Your task to perform on an android device: change timer sound Image 0: 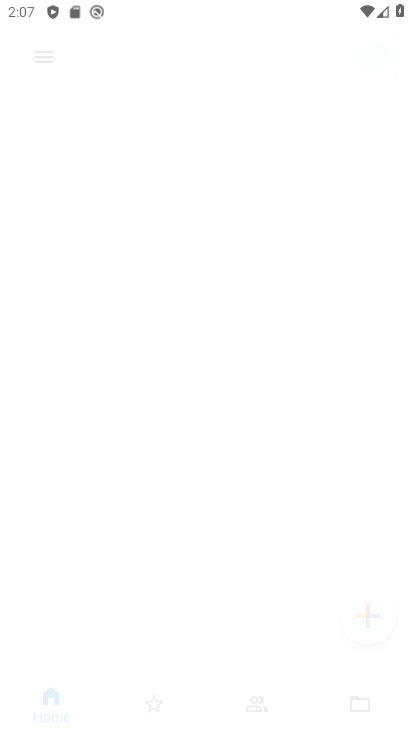
Step 0: drag from (201, 607) to (265, 137)
Your task to perform on an android device: change timer sound Image 1: 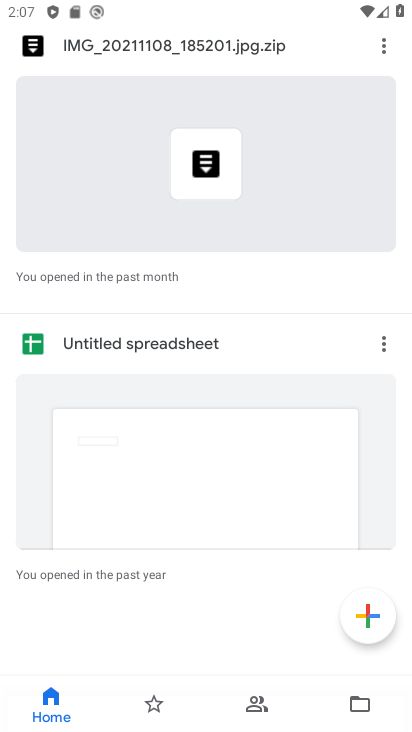
Step 1: press home button
Your task to perform on an android device: change timer sound Image 2: 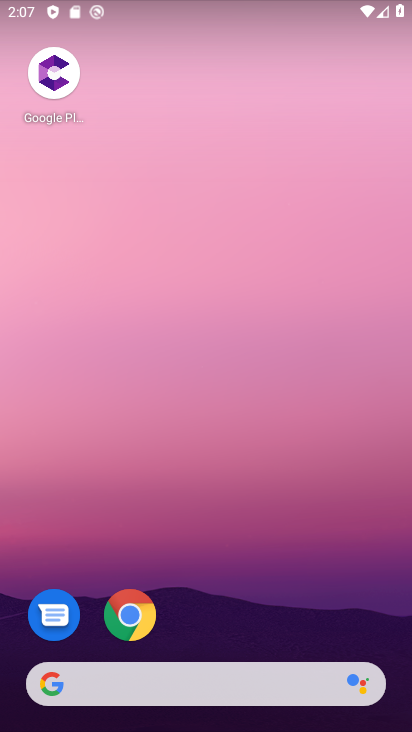
Step 2: drag from (219, 605) to (254, 144)
Your task to perform on an android device: change timer sound Image 3: 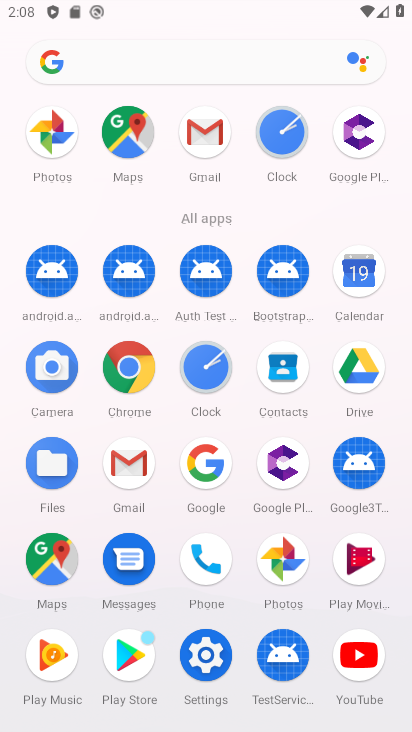
Step 3: click (205, 366)
Your task to perform on an android device: change timer sound Image 4: 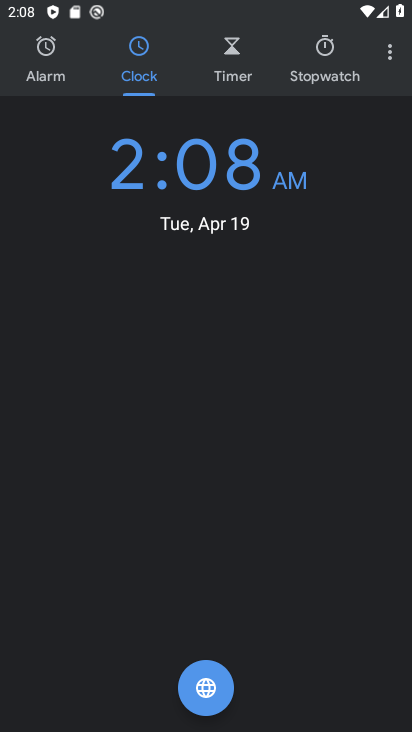
Step 4: click (388, 55)
Your task to perform on an android device: change timer sound Image 5: 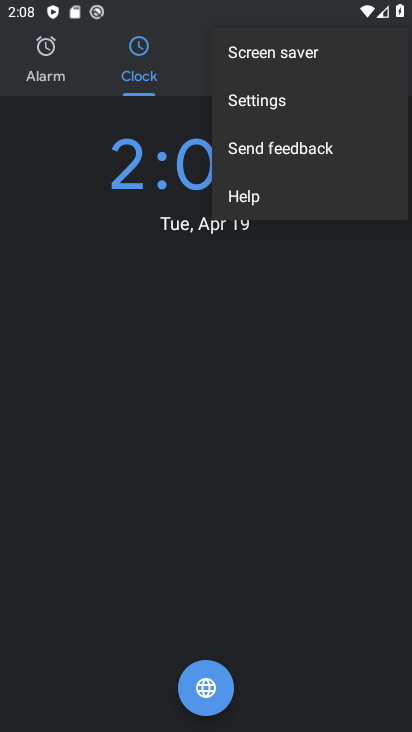
Step 5: click (286, 89)
Your task to perform on an android device: change timer sound Image 6: 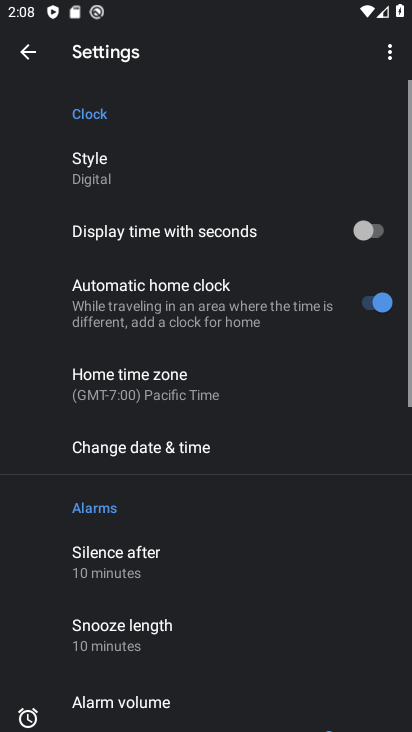
Step 6: drag from (226, 561) to (240, 112)
Your task to perform on an android device: change timer sound Image 7: 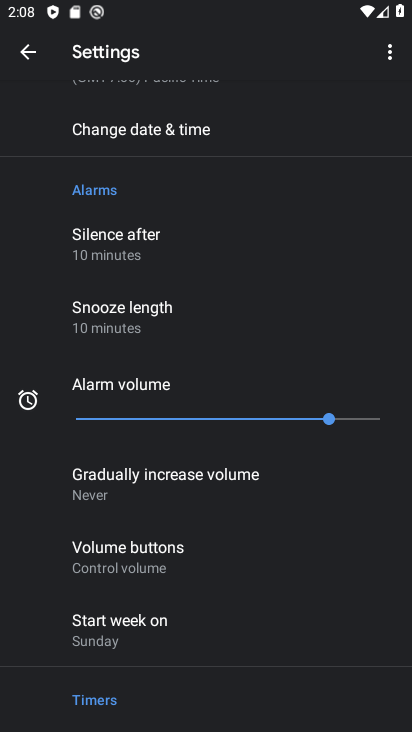
Step 7: drag from (179, 548) to (246, 222)
Your task to perform on an android device: change timer sound Image 8: 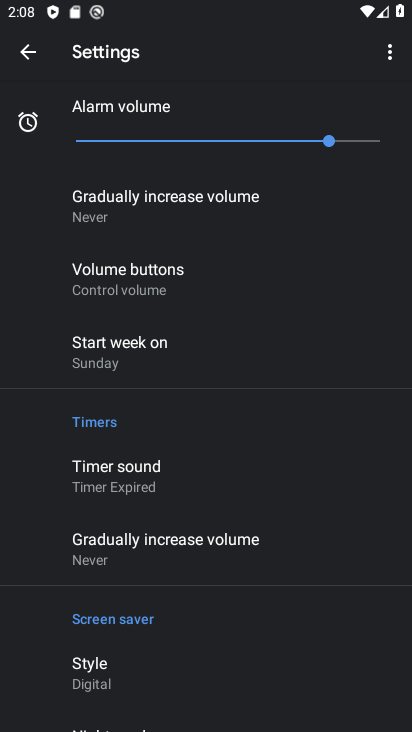
Step 8: click (161, 477)
Your task to perform on an android device: change timer sound Image 9: 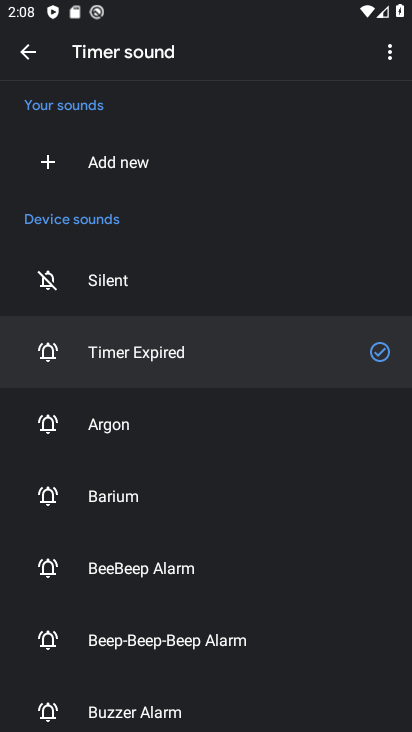
Step 9: click (174, 701)
Your task to perform on an android device: change timer sound Image 10: 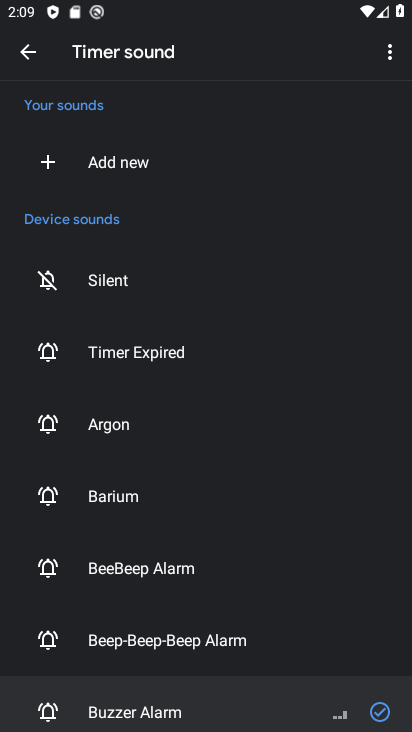
Step 10: task complete